Your task to perform on an android device: Open the web browser Image 0: 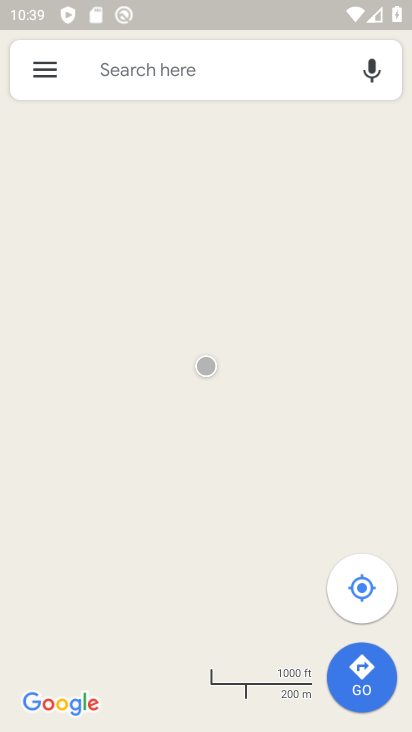
Step 0: press back button
Your task to perform on an android device: Open the web browser Image 1: 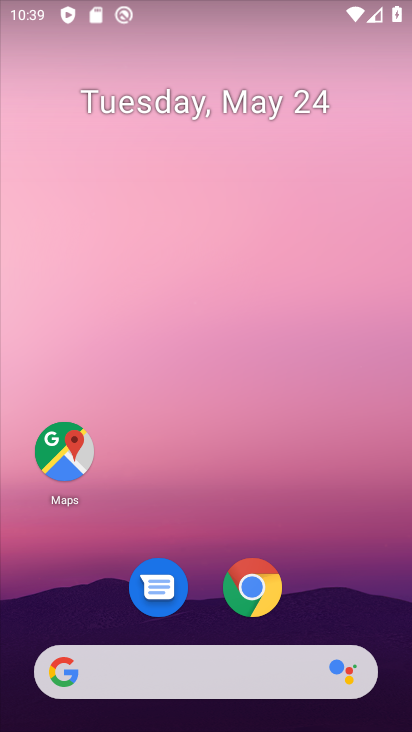
Step 1: drag from (343, 583) to (215, 32)
Your task to perform on an android device: Open the web browser Image 2: 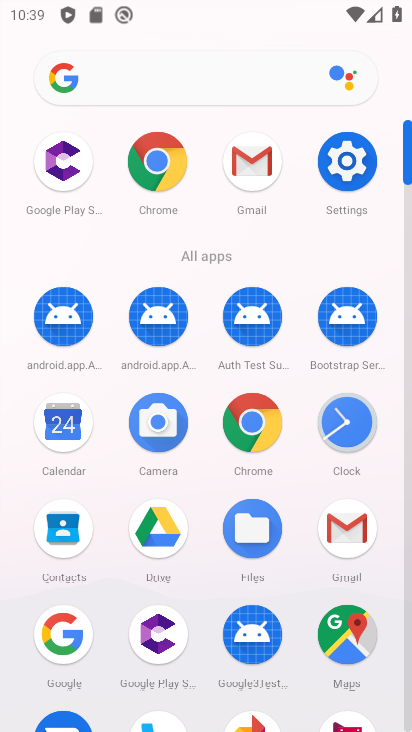
Step 2: click (160, 157)
Your task to perform on an android device: Open the web browser Image 3: 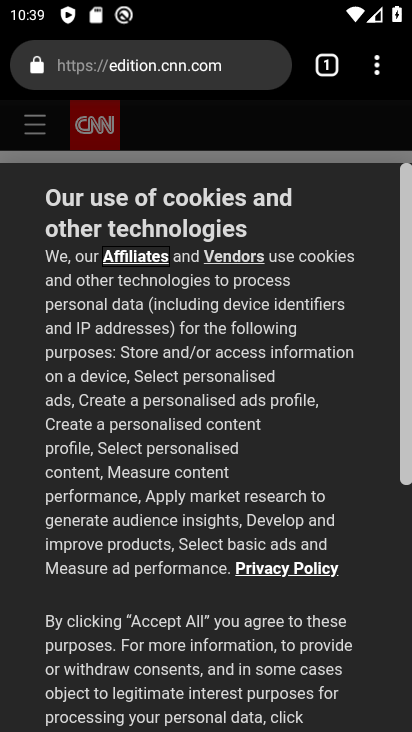
Step 3: task complete